Your task to perform on an android device: uninstall "Yahoo Mail" Image 0: 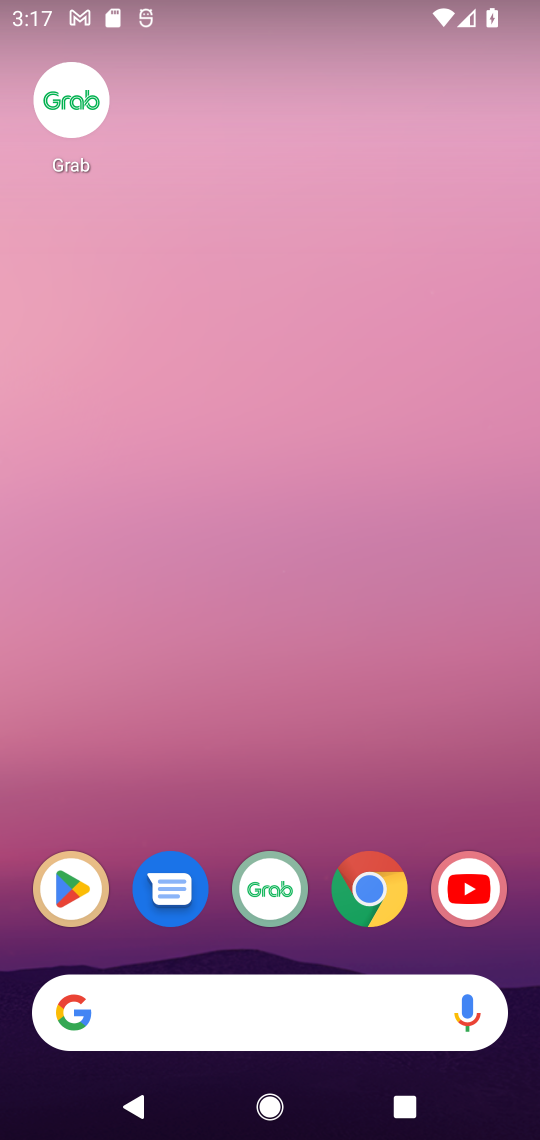
Step 0: click (62, 935)
Your task to perform on an android device: uninstall "Yahoo Mail" Image 1: 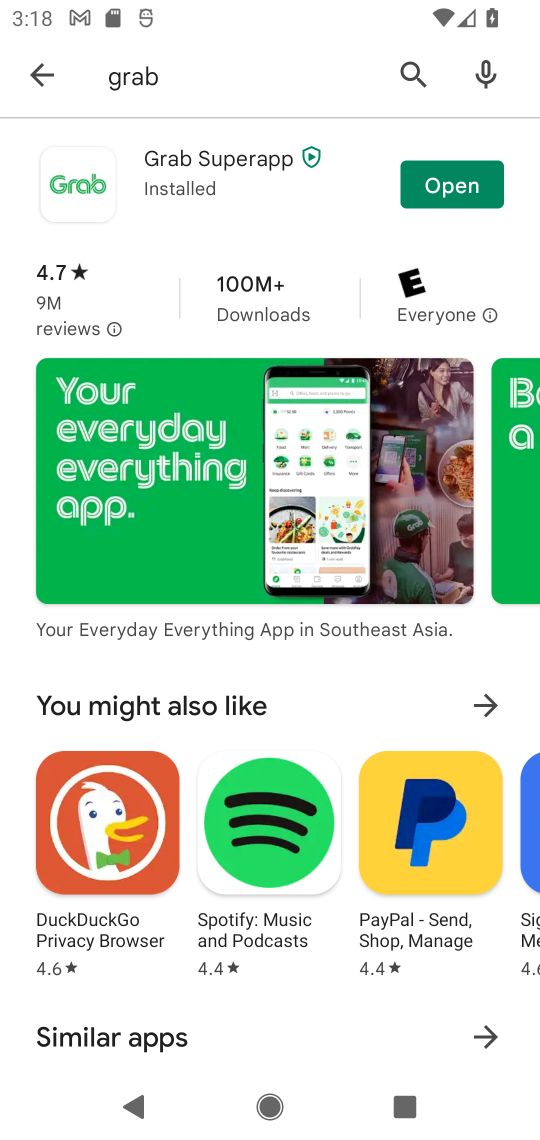
Step 1: click (394, 80)
Your task to perform on an android device: uninstall "Yahoo Mail" Image 2: 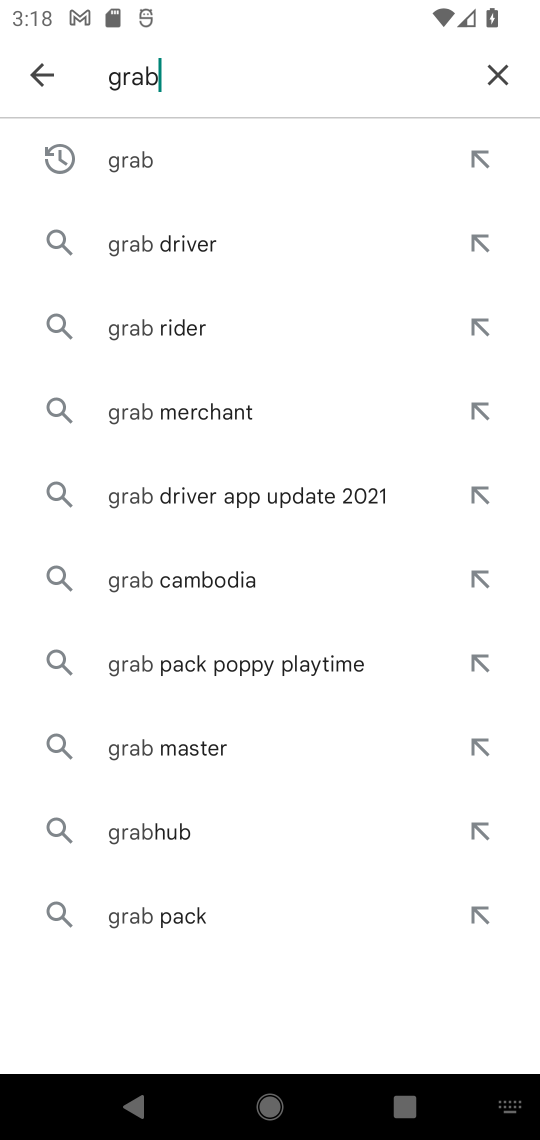
Step 2: click (494, 72)
Your task to perform on an android device: uninstall "Yahoo Mail" Image 3: 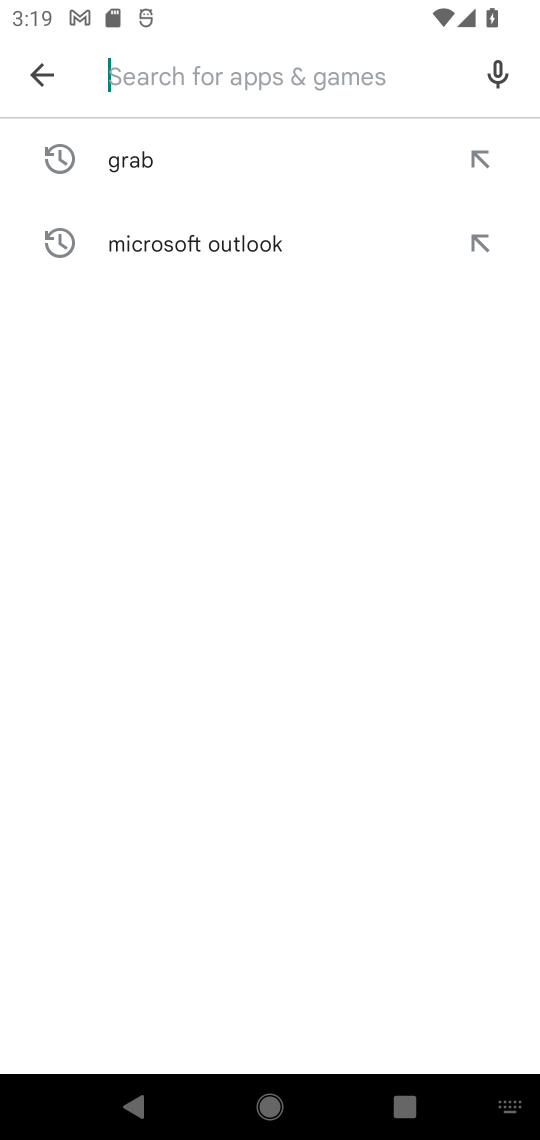
Step 3: type "Yahoo Mail"
Your task to perform on an android device: uninstall "Yahoo Mail" Image 4: 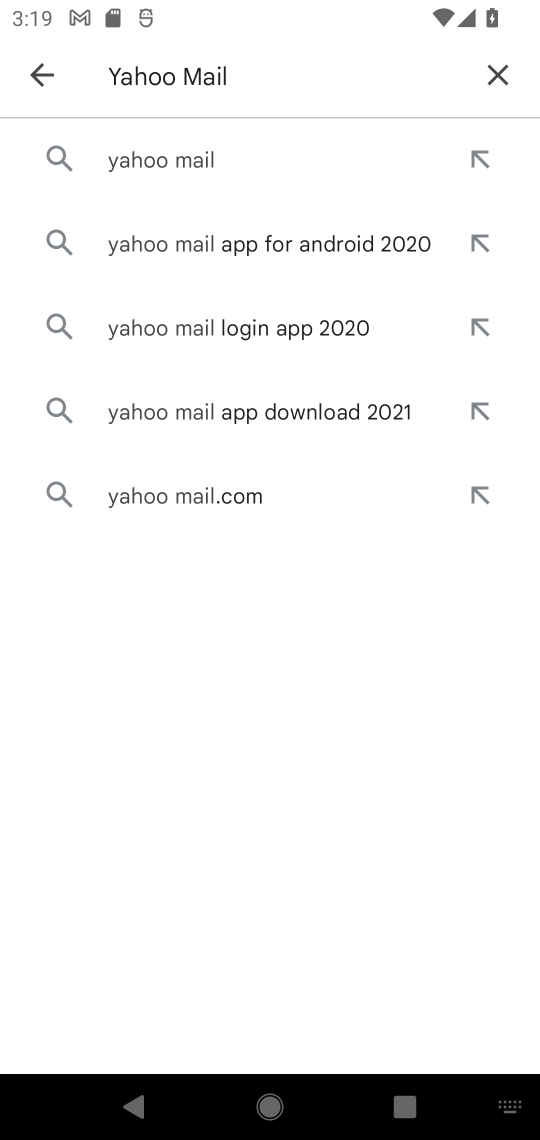
Step 4: click (135, 147)
Your task to perform on an android device: uninstall "Yahoo Mail" Image 5: 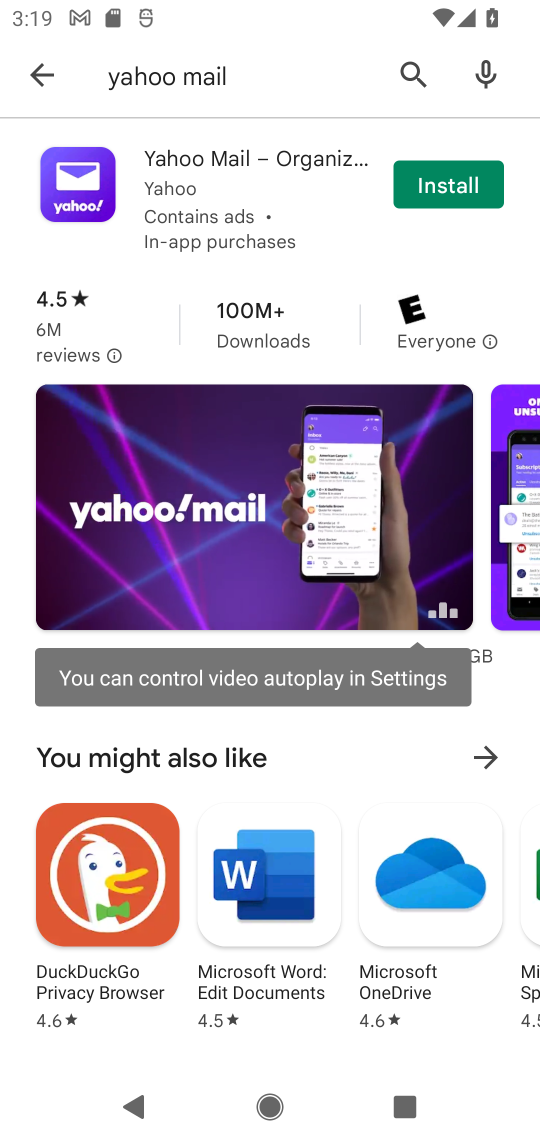
Step 5: task complete